Your task to perform on an android device: check battery use Image 0: 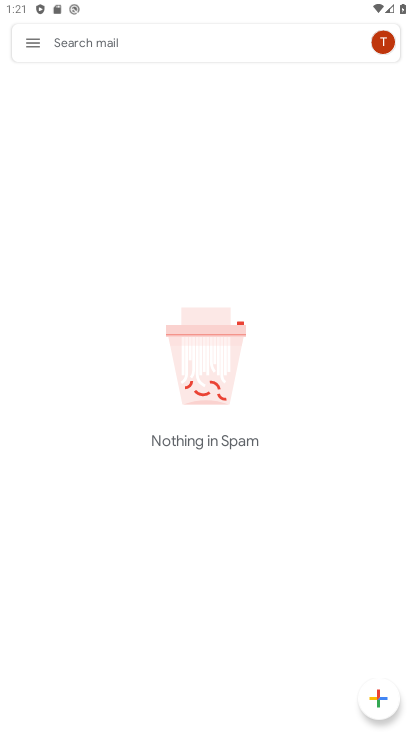
Step 0: press home button
Your task to perform on an android device: check battery use Image 1: 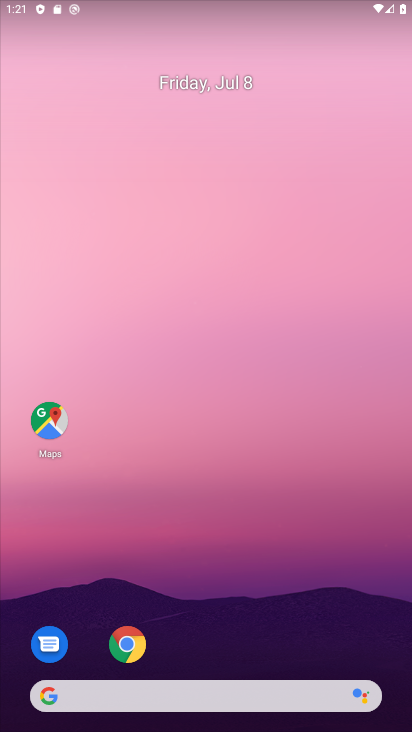
Step 1: drag from (259, 609) to (272, 5)
Your task to perform on an android device: check battery use Image 2: 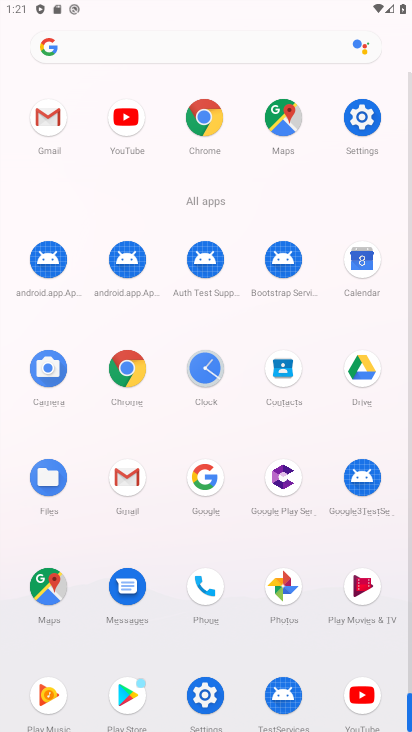
Step 2: click (370, 118)
Your task to perform on an android device: check battery use Image 3: 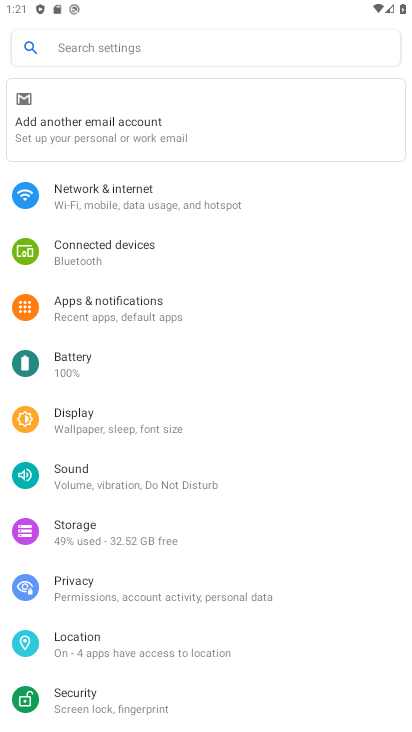
Step 3: click (67, 355)
Your task to perform on an android device: check battery use Image 4: 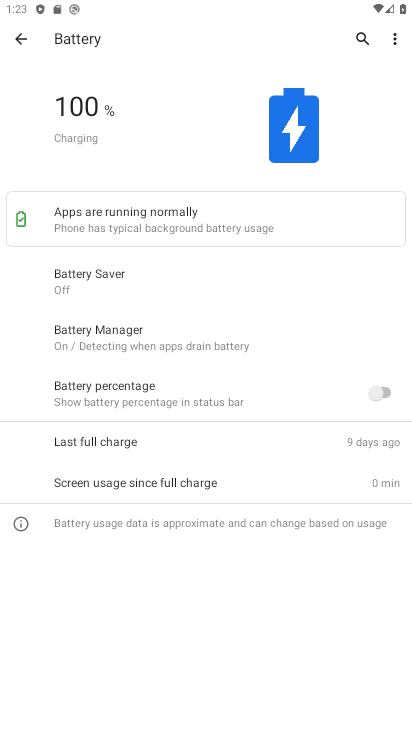
Step 4: task complete